Your task to perform on an android device: open app "Chime – Mobile Banking" (install if not already installed) Image 0: 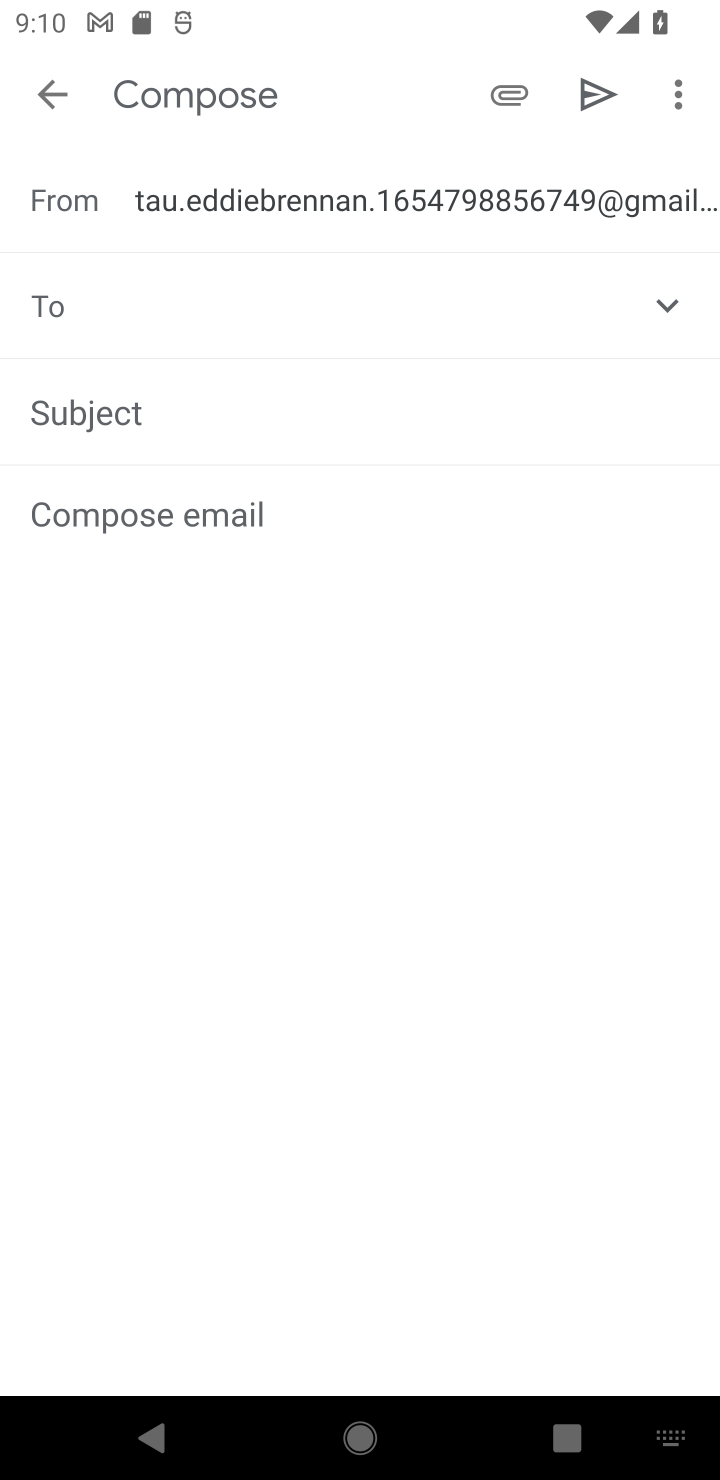
Step 0: press home button
Your task to perform on an android device: open app "Chime – Mobile Banking" (install if not already installed) Image 1: 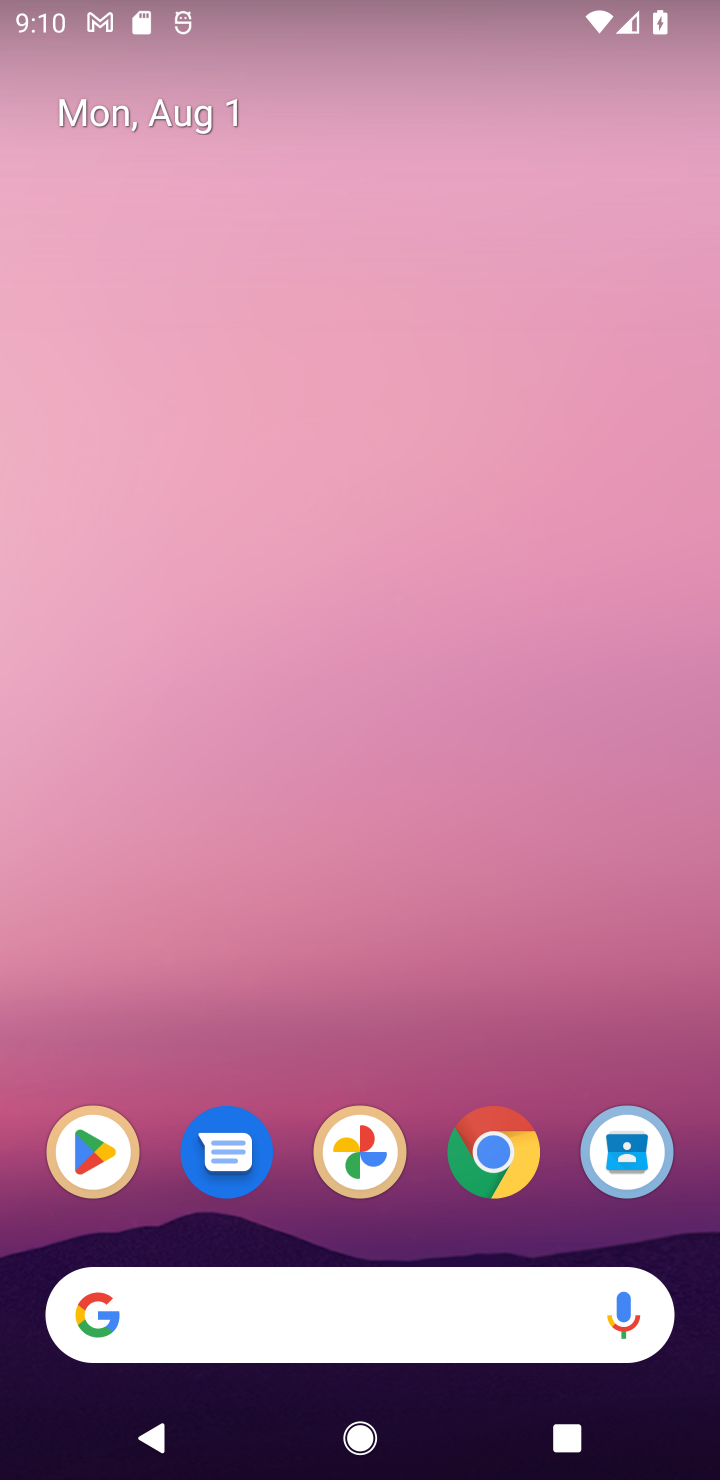
Step 1: drag from (371, 1193) to (299, 244)
Your task to perform on an android device: open app "Chime – Mobile Banking" (install if not already installed) Image 2: 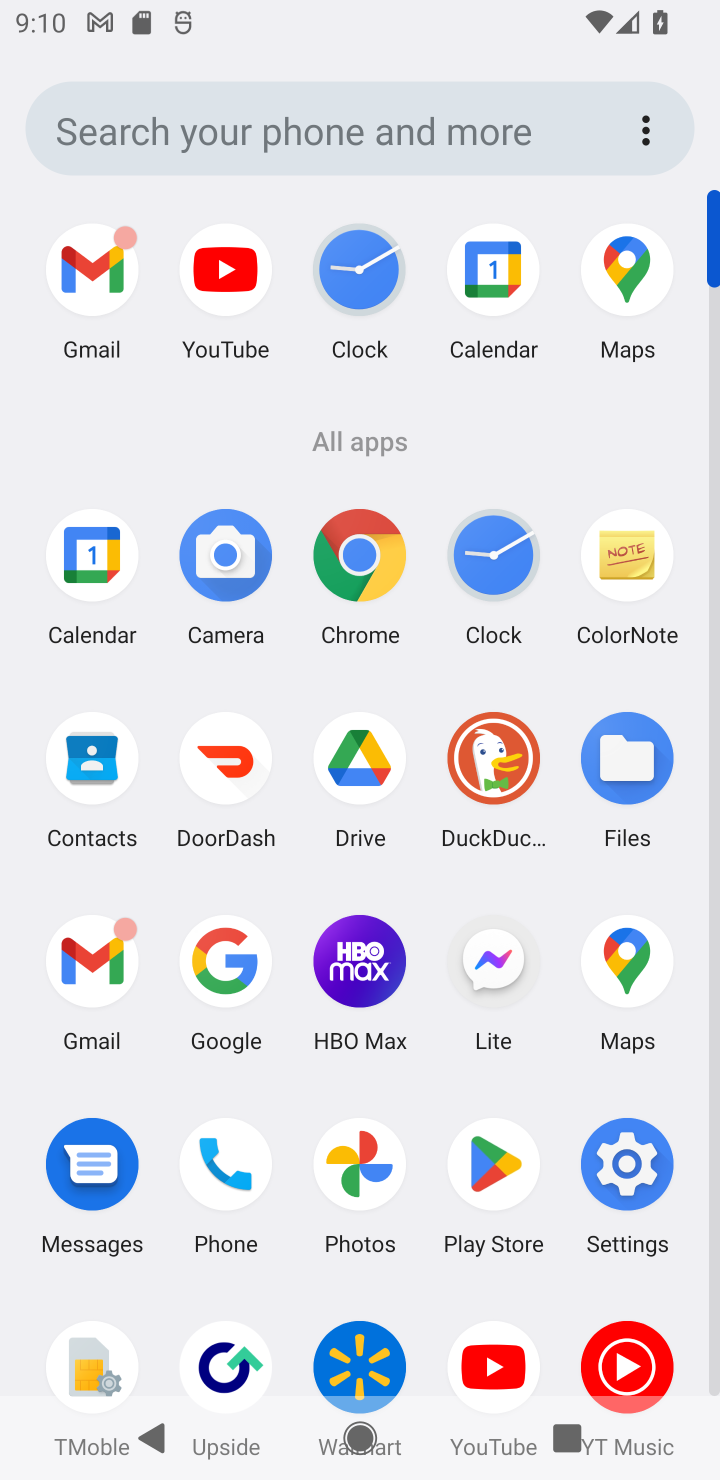
Step 2: click (513, 1175)
Your task to perform on an android device: open app "Chime – Mobile Banking" (install if not already installed) Image 3: 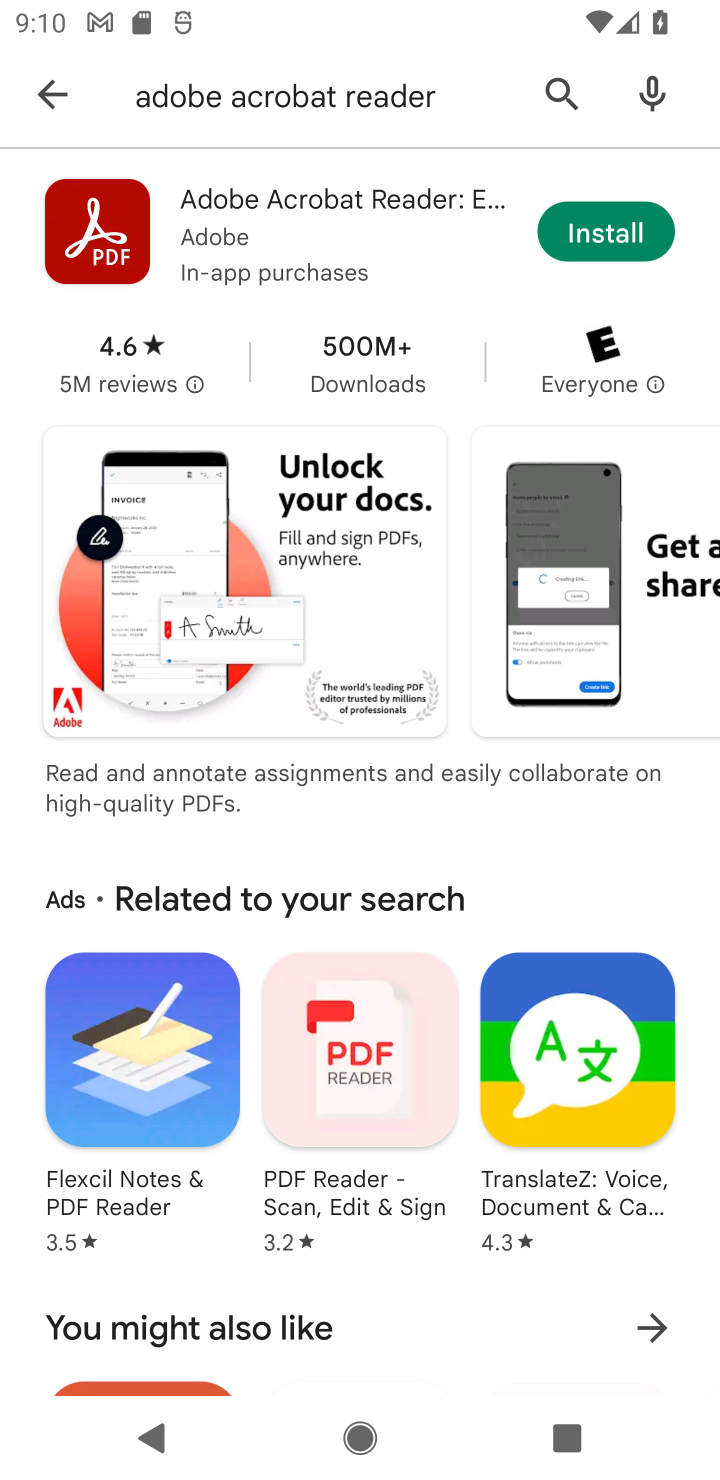
Step 3: click (54, 96)
Your task to perform on an android device: open app "Chime – Mobile Banking" (install if not already installed) Image 4: 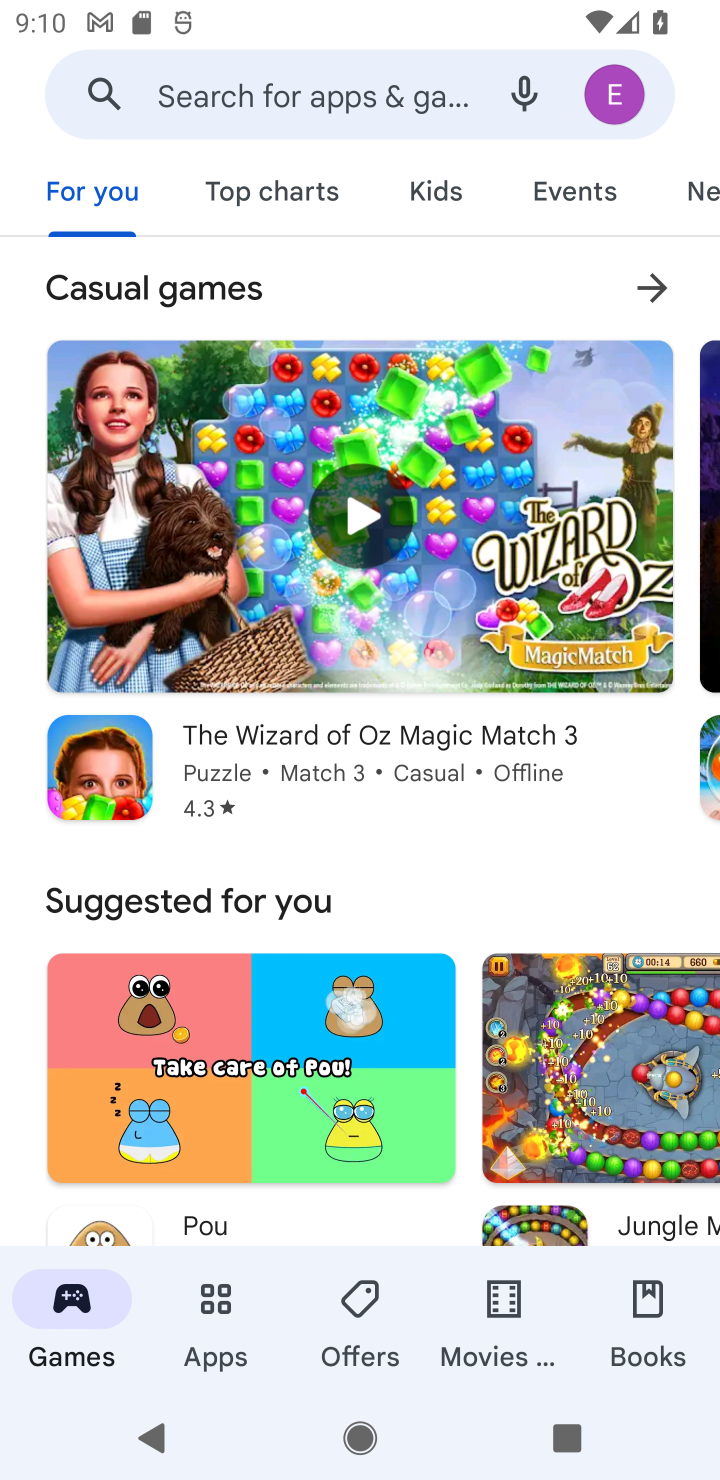
Step 4: click (199, 112)
Your task to perform on an android device: open app "Chime – Mobile Banking" (install if not already installed) Image 5: 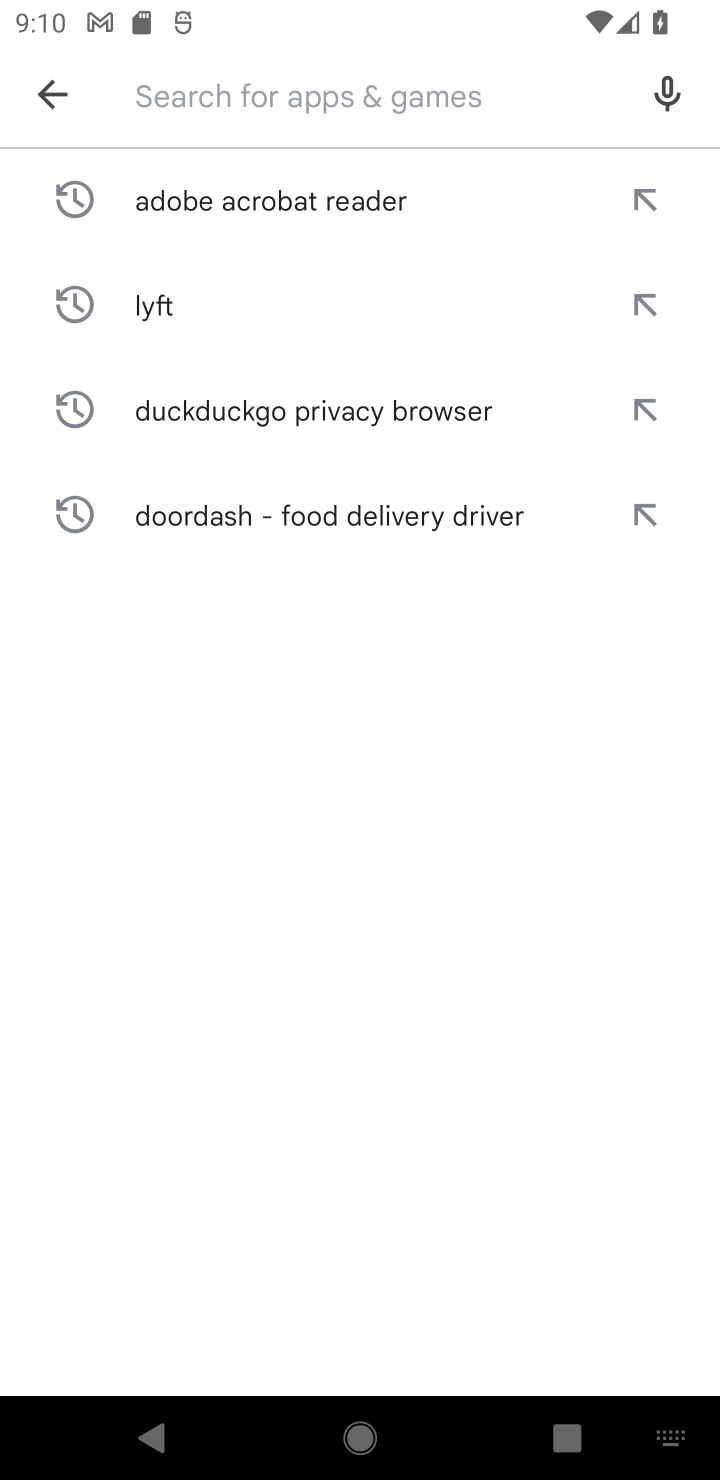
Step 5: type "Chime – Mobile Banking"
Your task to perform on an android device: open app "Chime – Mobile Banking" (install if not already installed) Image 6: 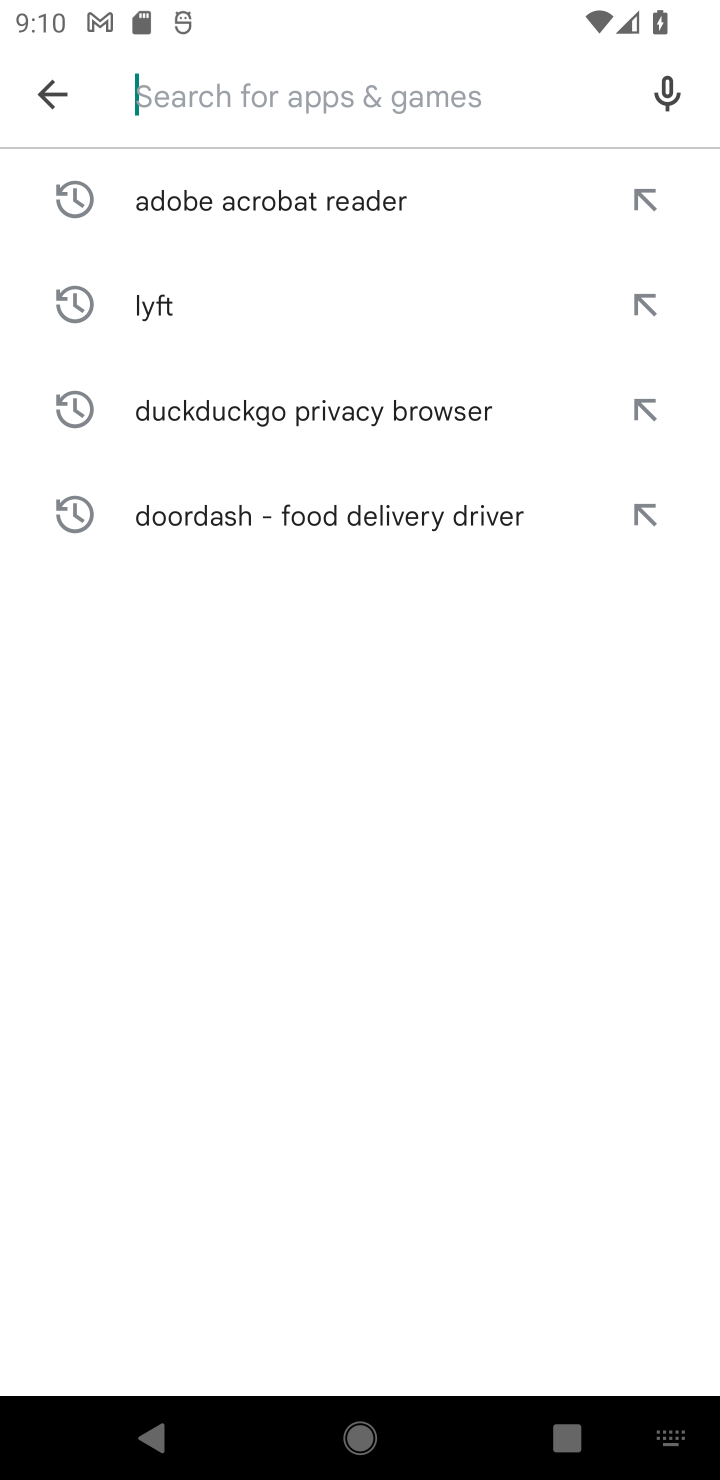
Step 6: type ""
Your task to perform on an android device: open app "Chime – Mobile Banking" (install if not already installed) Image 7: 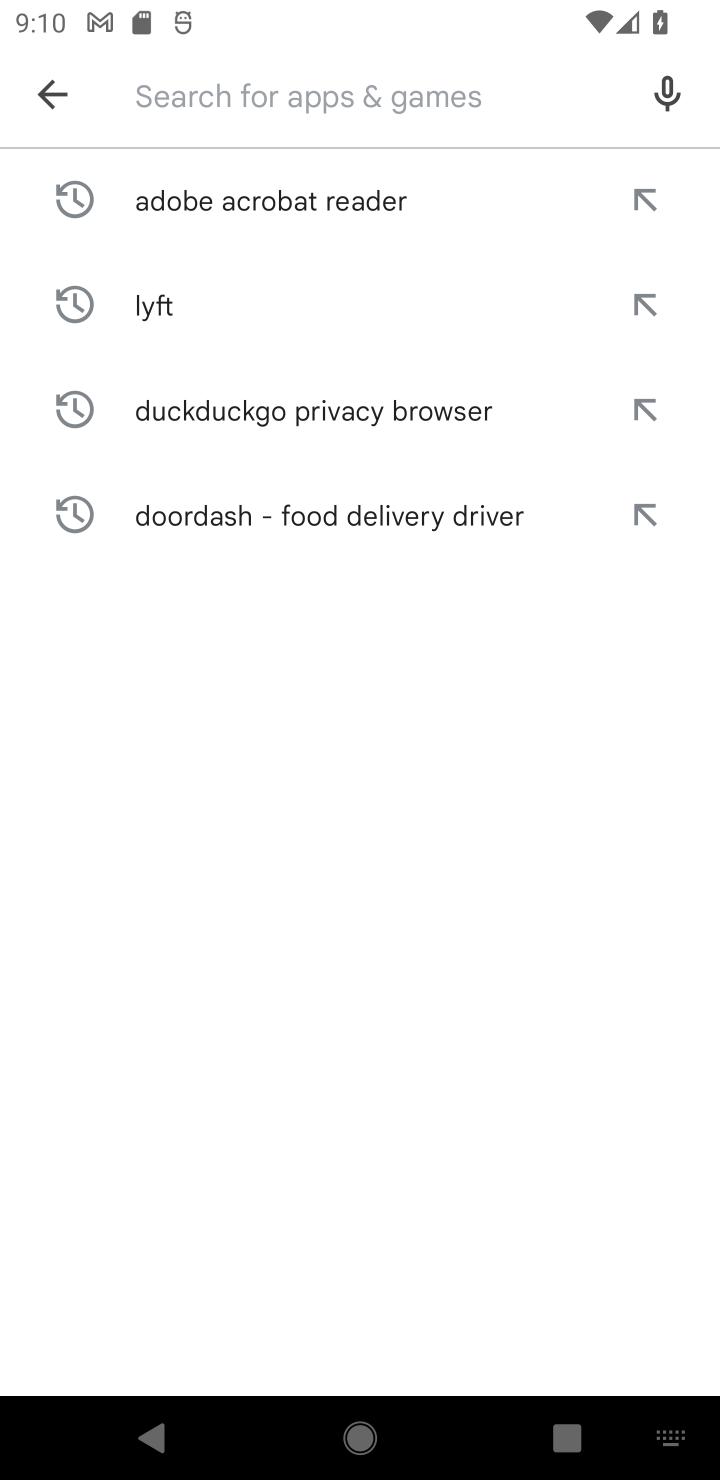
Step 7: task complete